Your task to perform on an android device: Open calendar and show me the third week of next month Image 0: 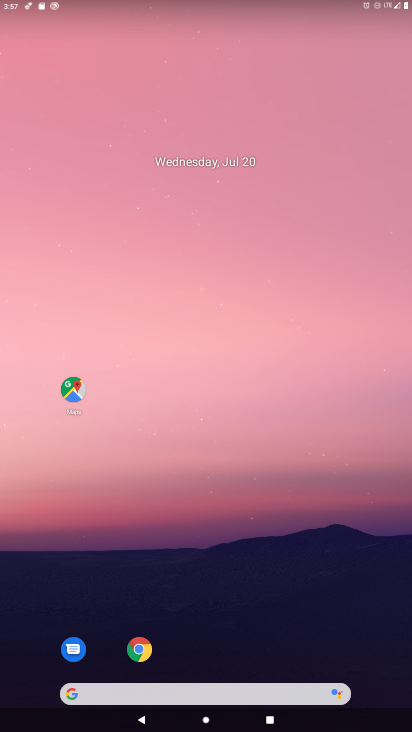
Step 0: drag from (203, 696) to (279, 178)
Your task to perform on an android device: Open calendar and show me the third week of next month Image 1: 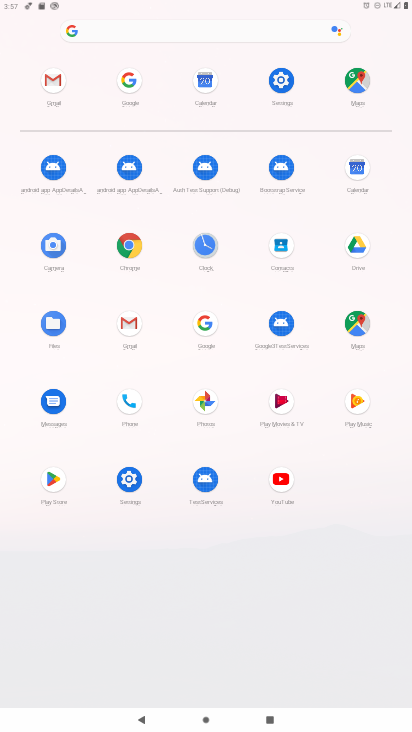
Step 1: click (358, 169)
Your task to perform on an android device: Open calendar and show me the third week of next month Image 2: 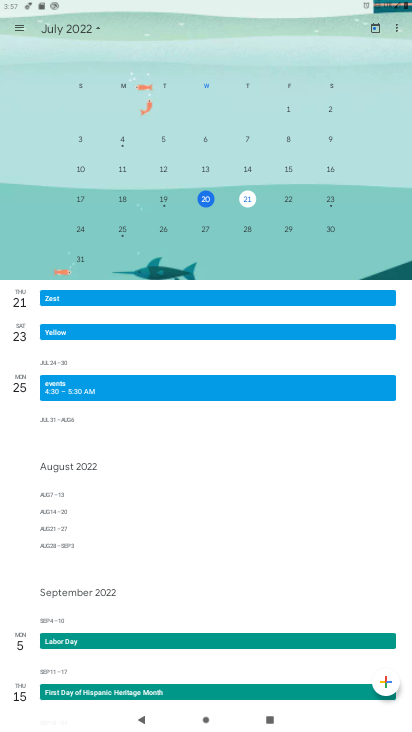
Step 2: click (374, 27)
Your task to perform on an android device: Open calendar and show me the third week of next month Image 3: 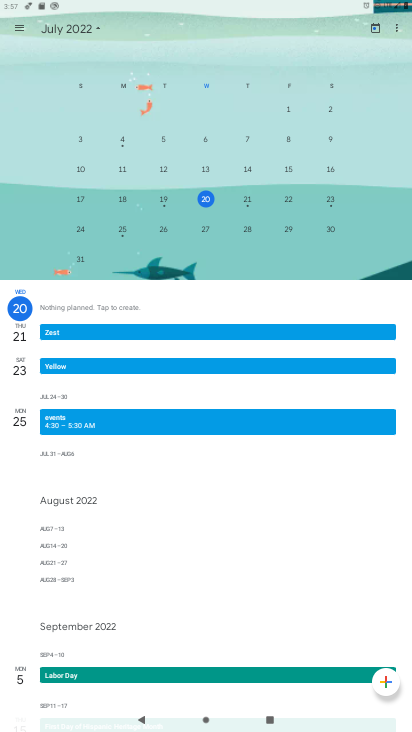
Step 3: click (99, 25)
Your task to perform on an android device: Open calendar and show me the third week of next month Image 4: 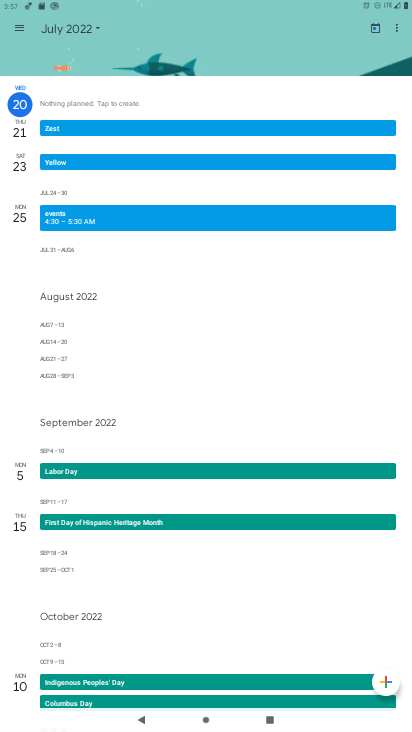
Step 4: click (99, 24)
Your task to perform on an android device: Open calendar and show me the third week of next month Image 5: 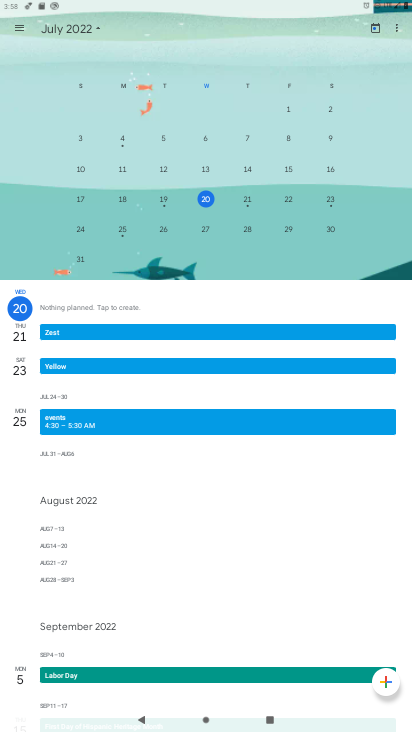
Step 5: drag from (332, 181) to (14, 137)
Your task to perform on an android device: Open calendar and show me the third week of next month Image 6: 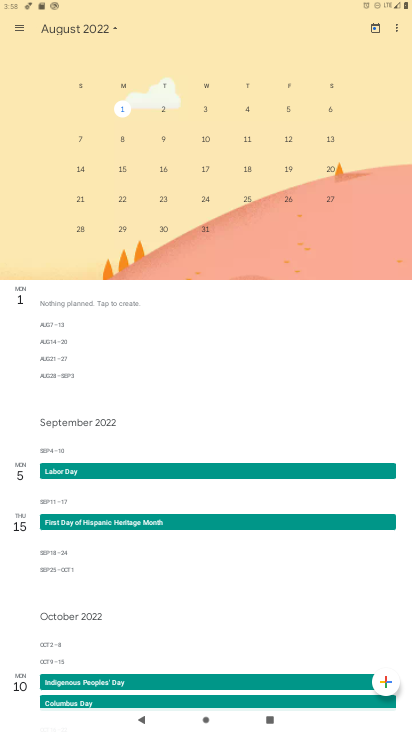
Step 6: click (125, 169)
Your task to perform on an android device: Open calendar and show me the third week of next month Image 7: 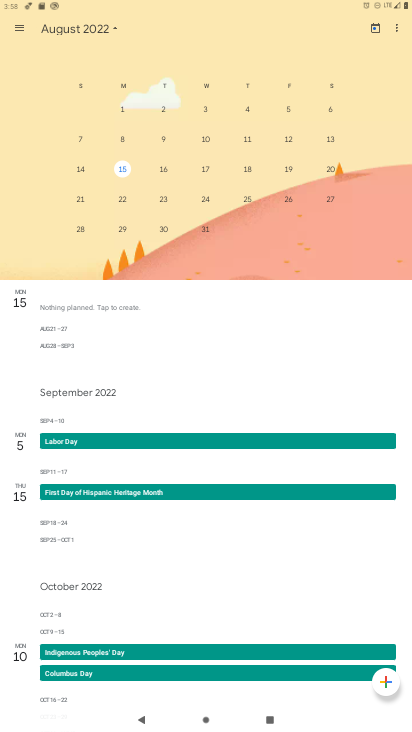
Step 7: click (23, 26)
Your task to perform on an android device: Open calendar and show me the third week of next month Image 8: 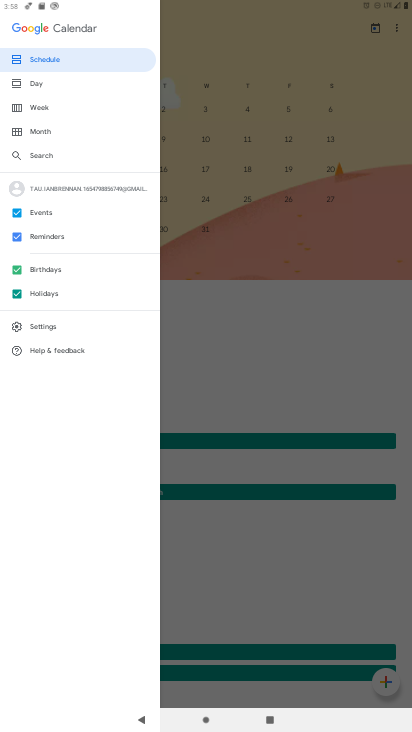
Step 8: click (39, 103)
Your task to perform on an android device: Open calendar and show me the third week of next month Image 9: 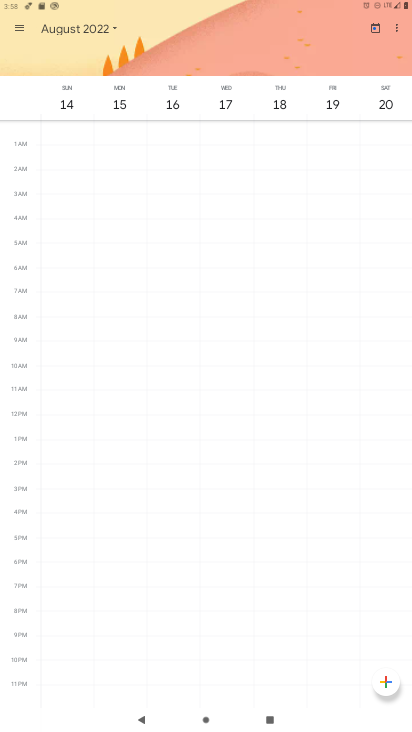
Step 9: task complete